Your task to perform on an android device: Search for vegetarian restaurants on Maps Image 0: 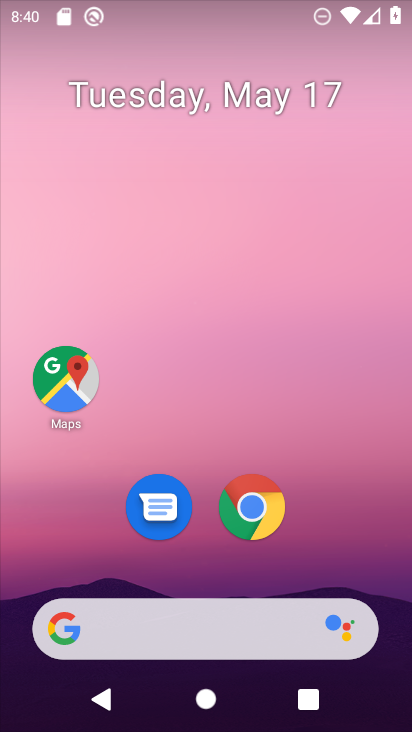
Step 0: click (62, 372)
Your task to perform on an android device: Search for vegetarian restaurants on Maps Image 1: 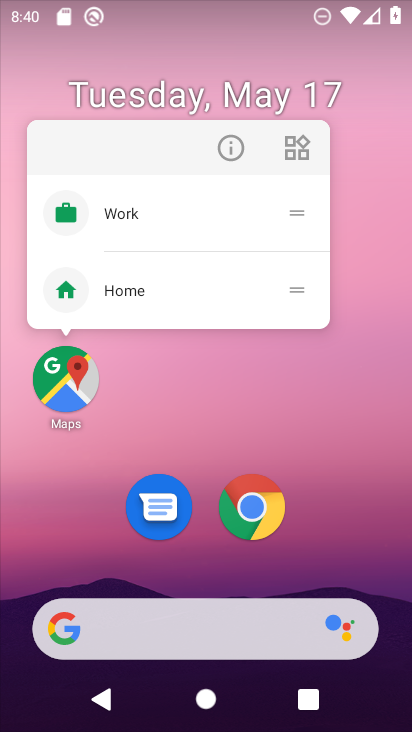
Step 1: click (140, 403)
Your task to perform on an android device: Search for vegetarian restaurants on Maps Image 2: 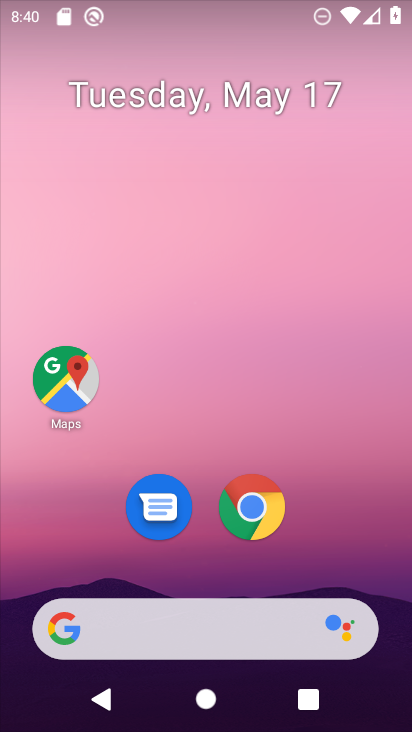
Step 2: click (58, 385)
Your task to perform on an android device: Search for vegetarian restaurants on Maps Image 3: 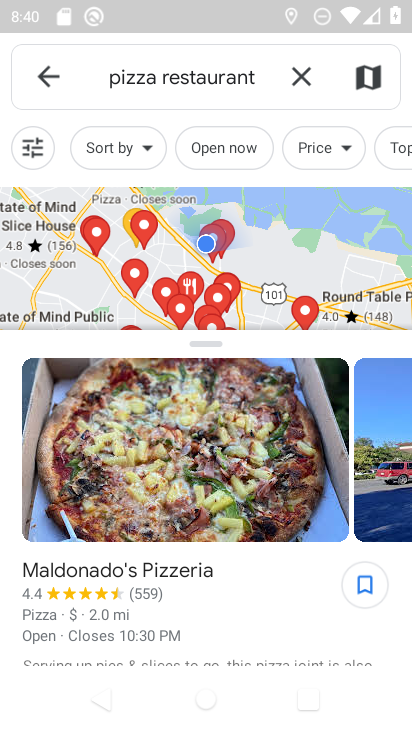
Step 3: click (305, 78)
Your task to perform on an android device: Search for vegetarian restaurants on Maps Image 4: 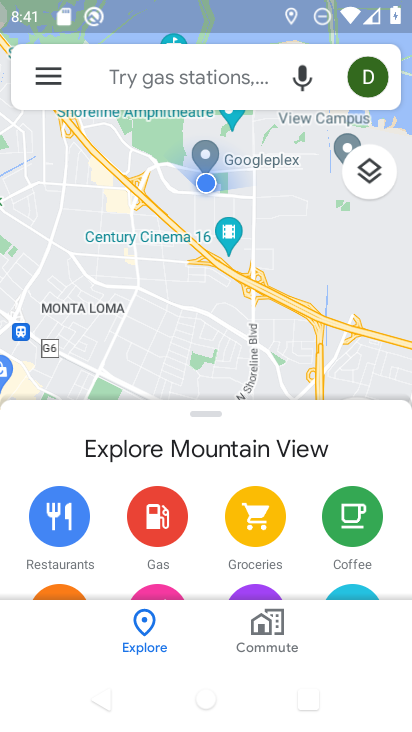
Step 4: click (130, 76)
Your task to perform on an android device: Search for vegetarian restaurants on Maps Image 5: 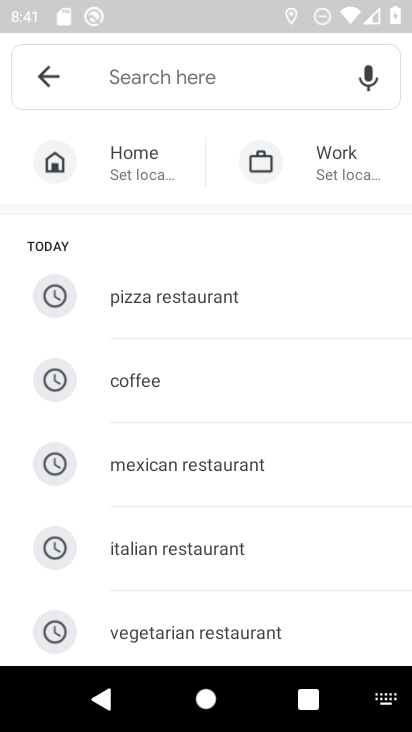
Step 5: type "vegetarian restaurant"
Your task to perform on an android device: Search for vegetarian restaurants on Maps Image 6: 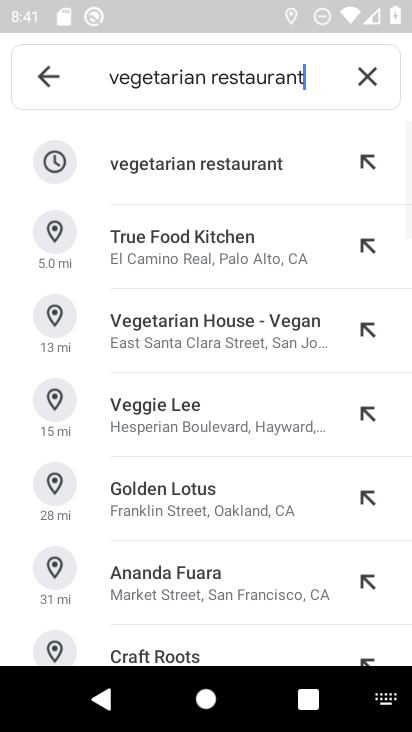
Step 6: click (189, 170)
Your task to perform on an android device: Search for vegetarian restaurants on Maps Image 7: 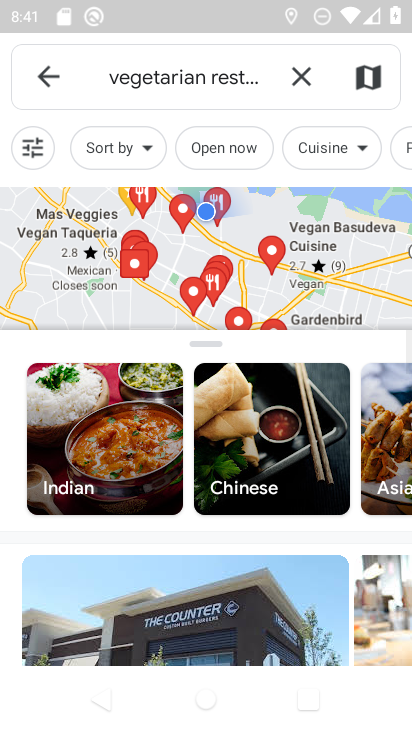
Step 7: task complete